Your task to perform on an android device: Open Reddit.com Image 0: 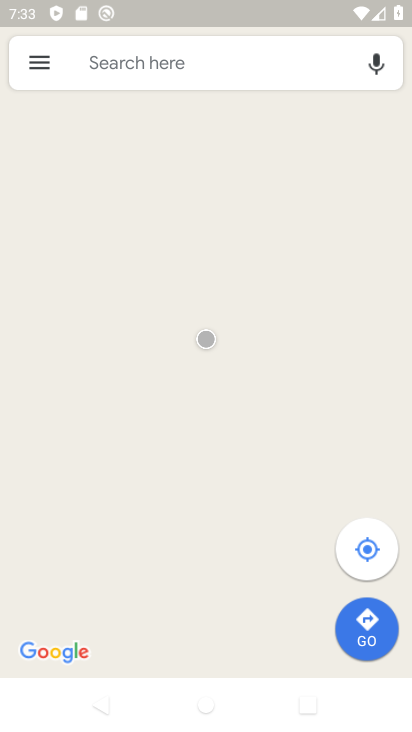
Step 0: press home button
Your task to perform on an android device: Open Reddit.com Image 1: 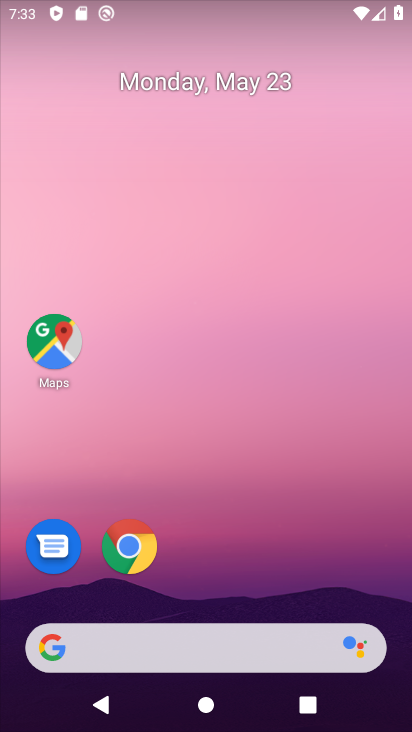
Step 1: drag from (387, 584) to (379, 187)
Your task to perform on an android device: Open Reddit.com Image 2: 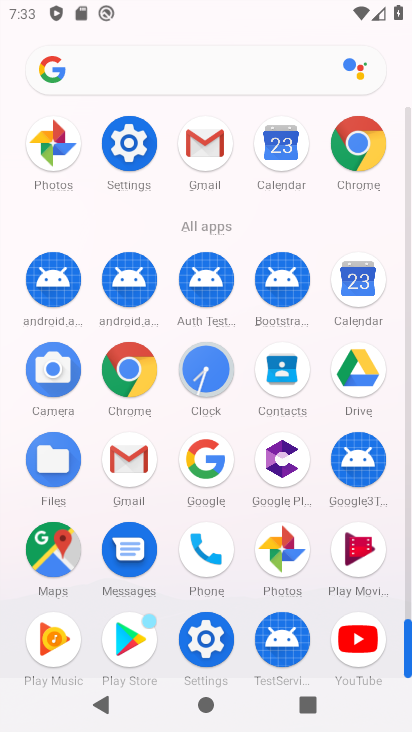
Step 2: click (135, 369)
Your task to perform on an android device: Open Reddit.com Image 3: 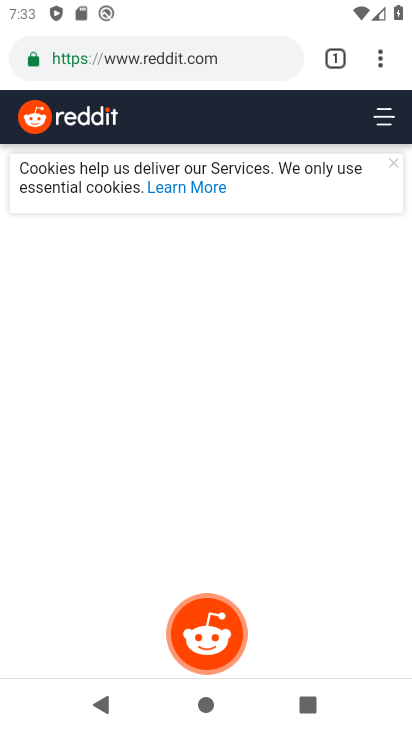
Step 3: task complete